Your task to perform on an android device: make emails show in primary in the gmail app Image 0: 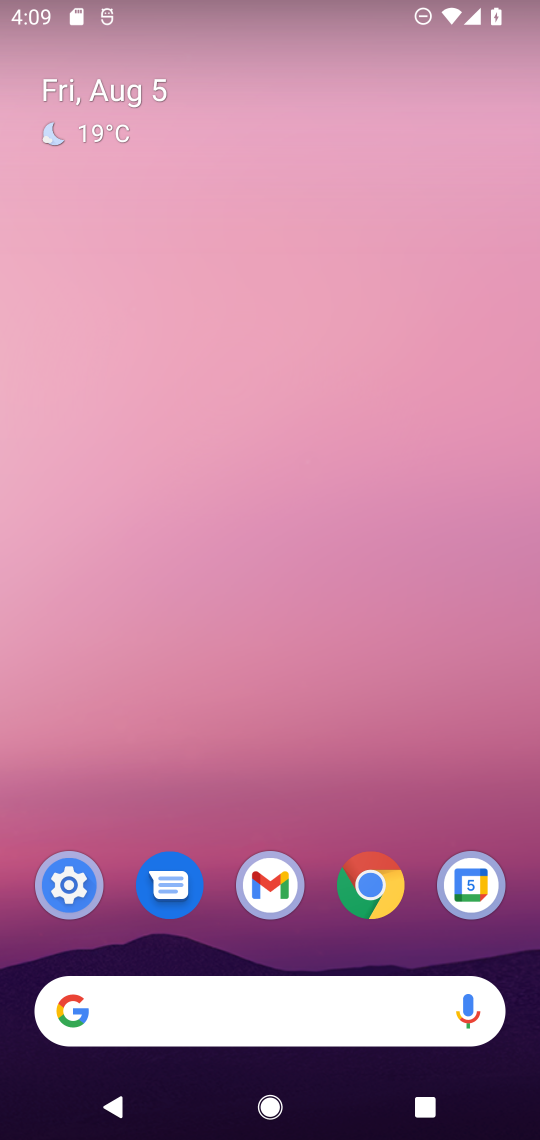
Step 0: drag from (314, 957) to (331, 193)
Your task to perform on an android device: make emails show in primary in the gmail app Image 1: 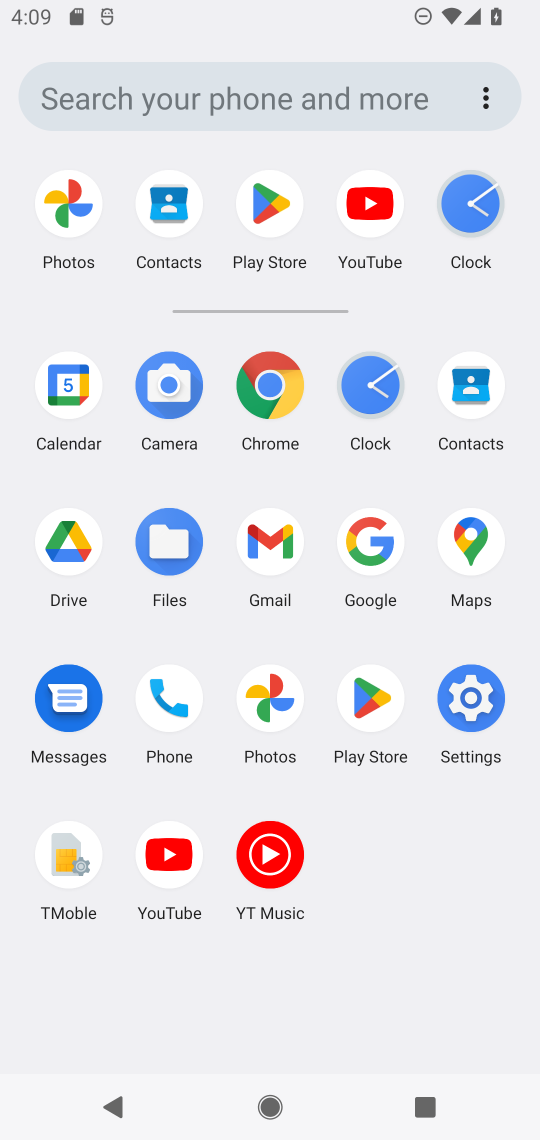
Step 1: click (279, 541)
Your task to perform on an android device: make emails show in primary in the gmail app Image 2: 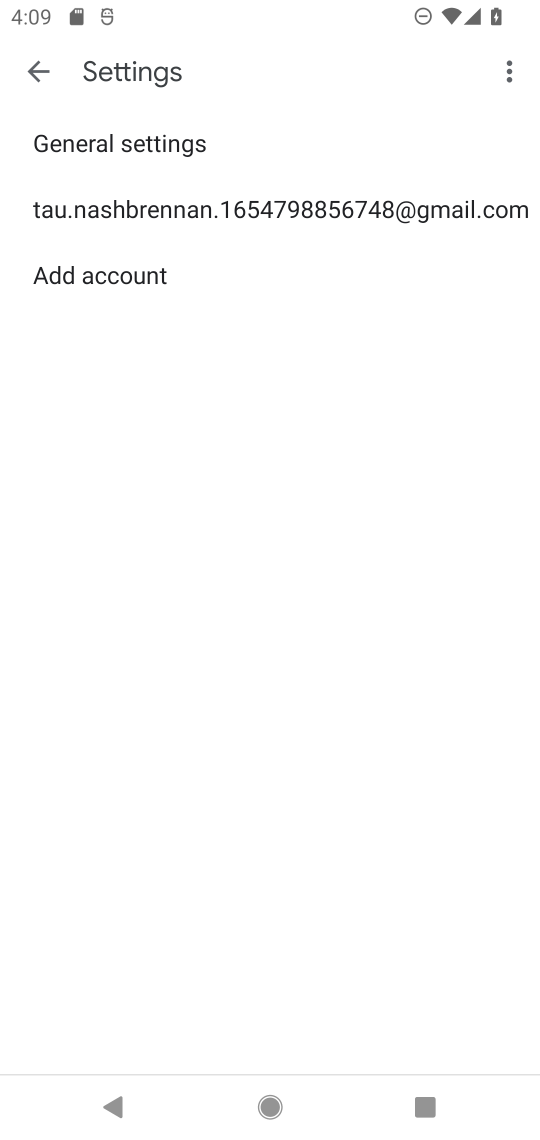
Step 2: click (301, 202)
Your task to perform on an android device: make emails show in primary in the gmail app Image 3: 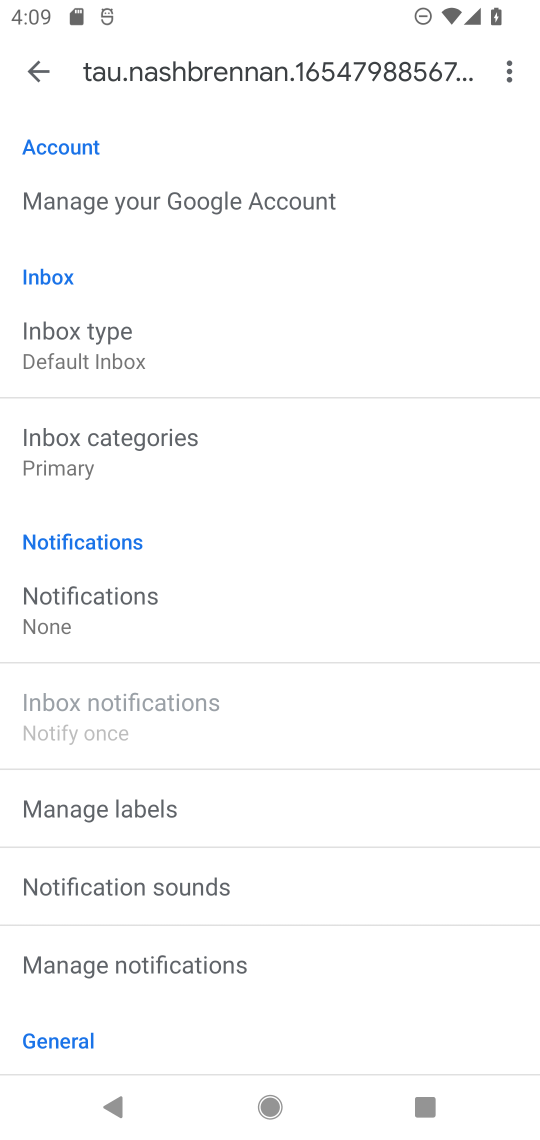
Step 3: task complete